Your task to perform on an android device: turn vacation reply on in the gmail app Image 0: 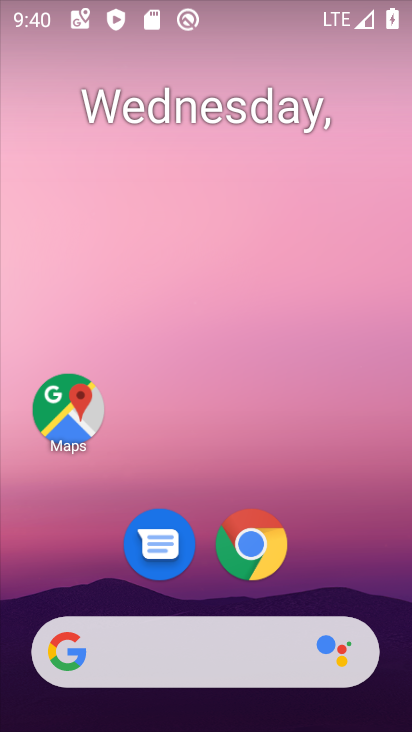
Step 0: drag from (207, 601) to (248, 132)
Your task to perform on an android device: turn vacation reply on in the gmail app Image 1: 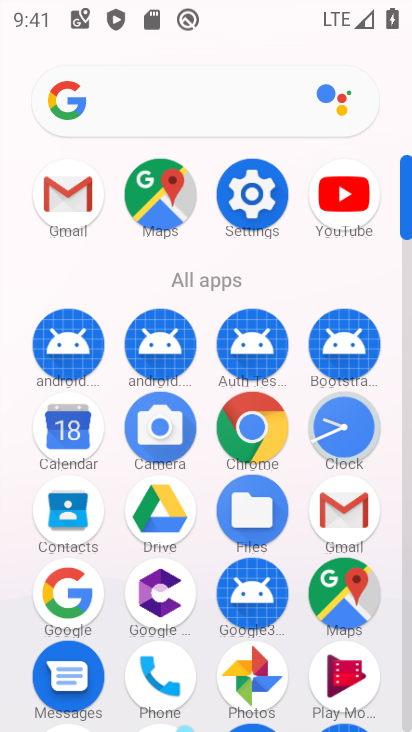
Step 1: click (333, 509)
Your task to perform on an android device: turn vacation reply on in the gmail app Image 2: 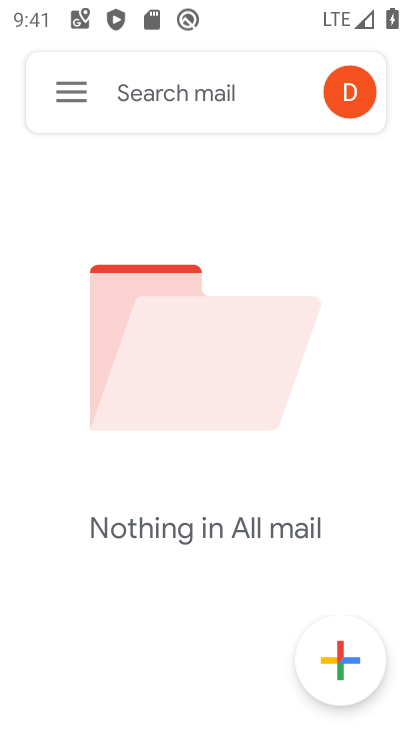
Step 2: click (82, 75)
Your task to perform on an android device: turn vacation reply on in the gmail app Image 3: 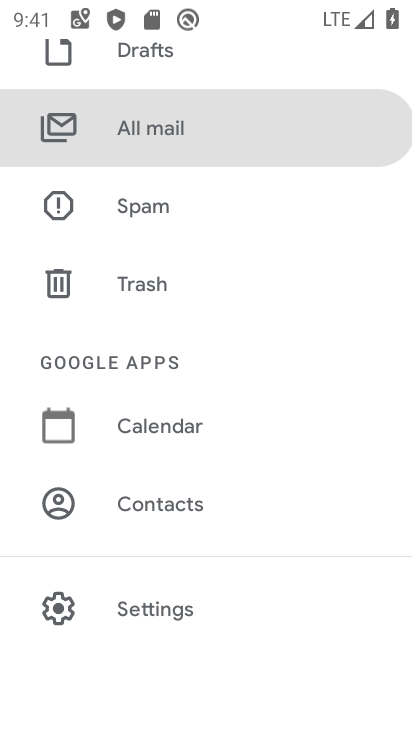
Step 3: click (144, 597)
Your task to perform on an android device: turn vacation reply on in the gmail app Image 4: 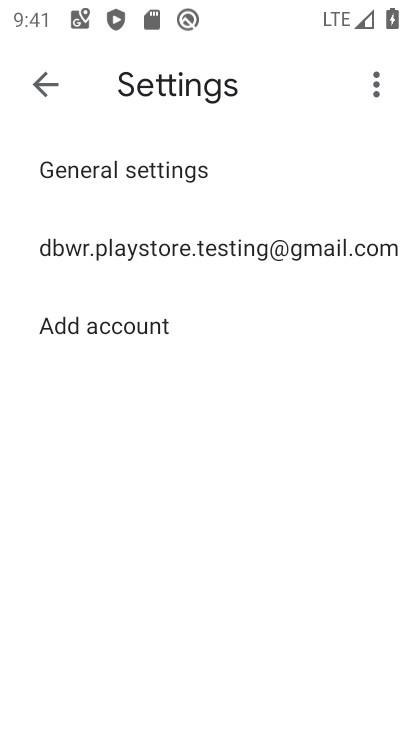
Step 4: click (154, 246)
Your task to perform on an android device: turn vacation reply on in the gmail app Image 5: 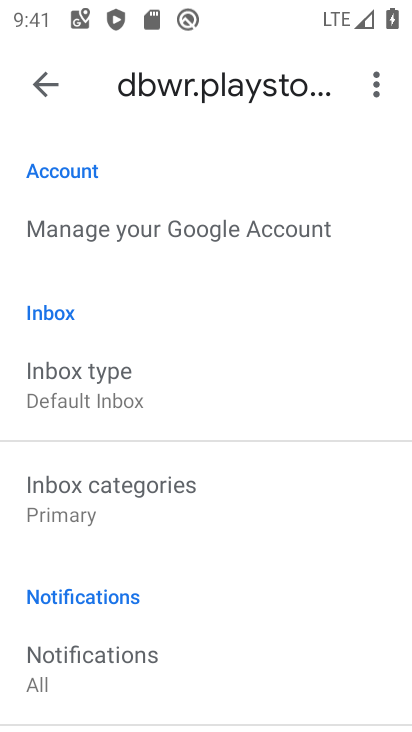
Step 5: drag from (98, 592) to (211, 193)
Your task to perform on an android device: turn vacation reply on in the gmail app Image 6: 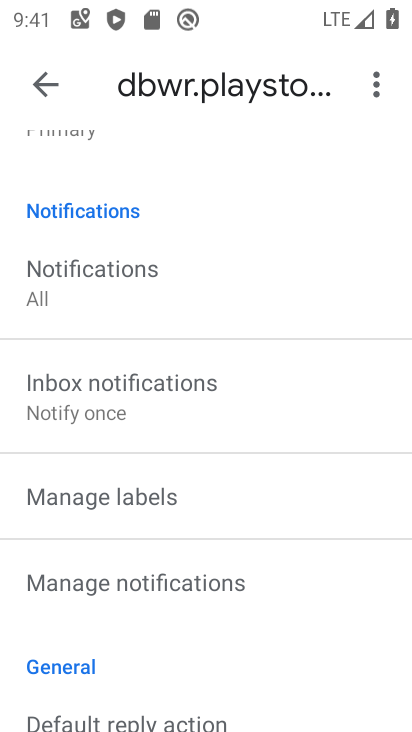
Step 6: drag from (163, 647) to (254, 201)
Your task to perform on an android device: turn vacation reply on in the gmail app Image 7: 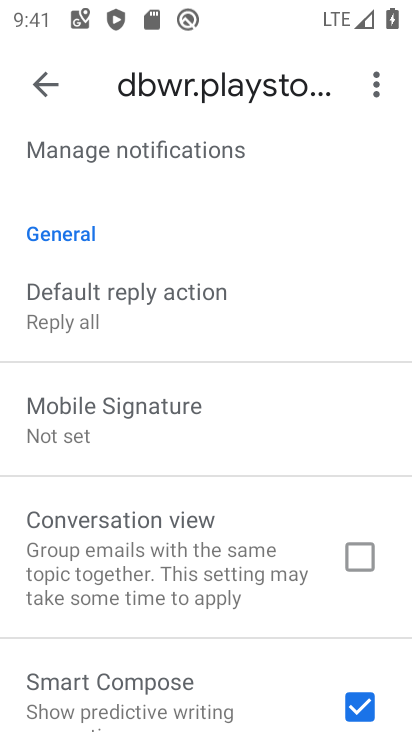
Step 7: drag from (175, 618) to (235, 238)
Your task to perform on an android device: turn vacation reply on in the gmail app Image 8: 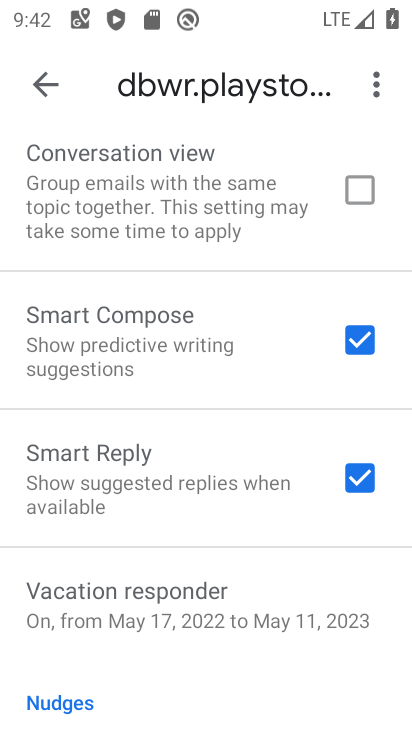
Step 8: click (151, 602)
Your task to perform on an android device: turn vacation reply on in the gmail app Image 9: 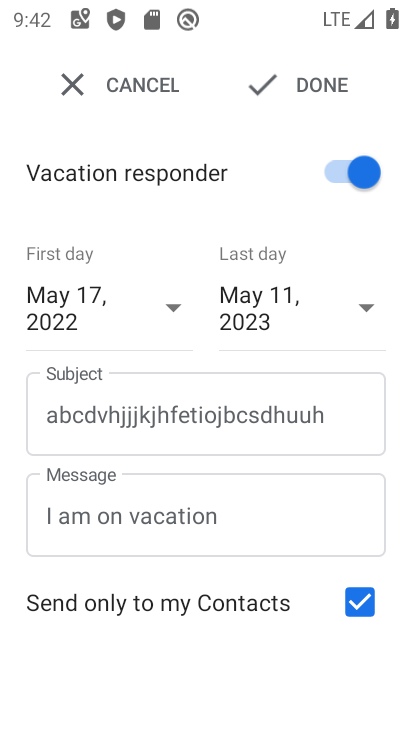
Step 9: click (274, 95)
Your task to perform on an android device: turn vacation reply on in the gmail app Image 10: 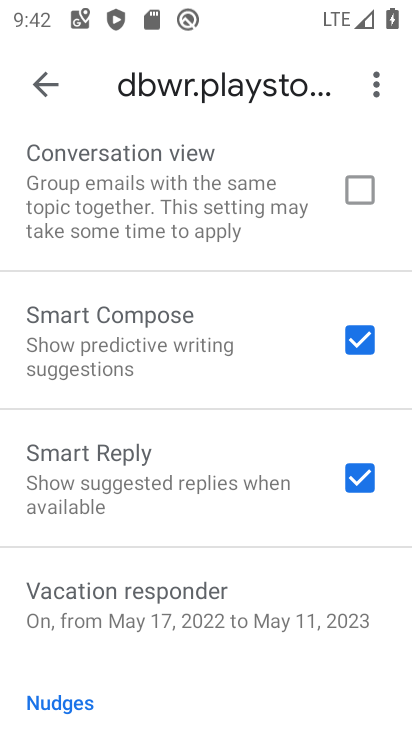
Step 10: task complete